Your task to perform on an android device: check data usage Image 0: 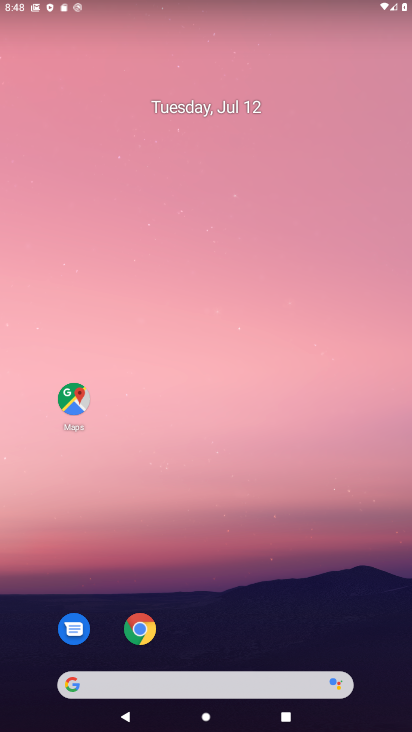
Step 0: drag from (274, 696) to (253, 131)
Your task to perform on an android device: check data usage Image 1: 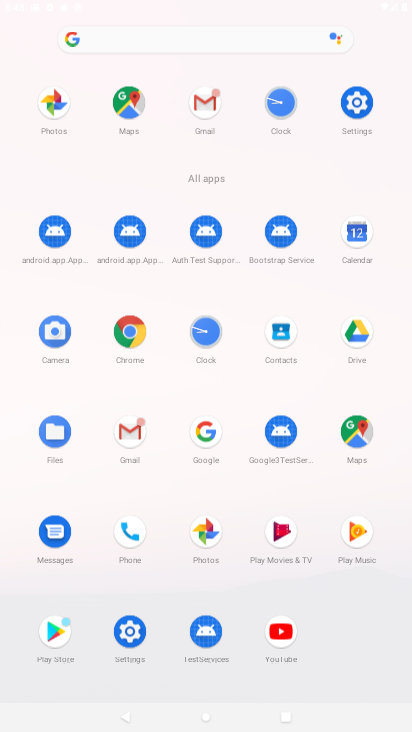
Step 1: drag from (272, 661) to (245, 189)
Your task to perform on an android device: check data usage Image 2: 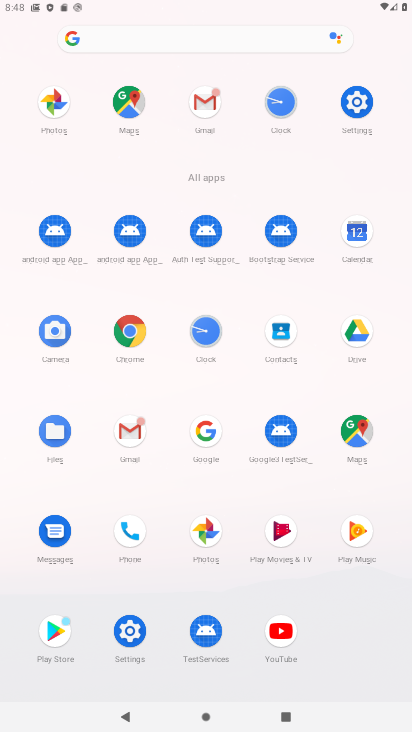
Step 2: click (356, 112)
Your task to perform on an android device: check data usage Image 3: 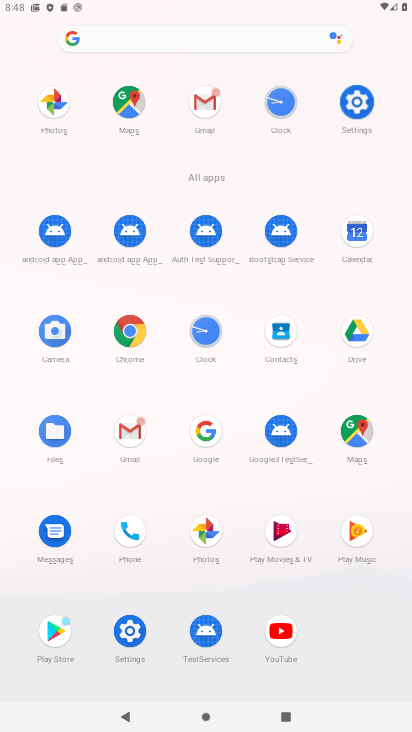
Step 3: click (356, 112)
Your task to perform on an android device: check data usage Image 4: 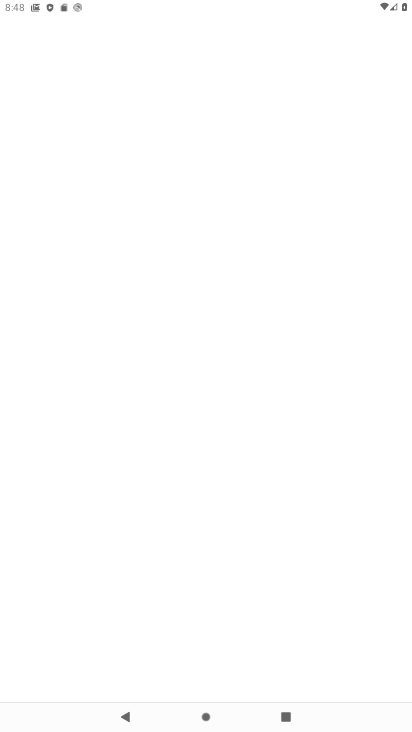
Step 4: click (357, 112)
Your task to perform on an android device: check data usage Image 5: 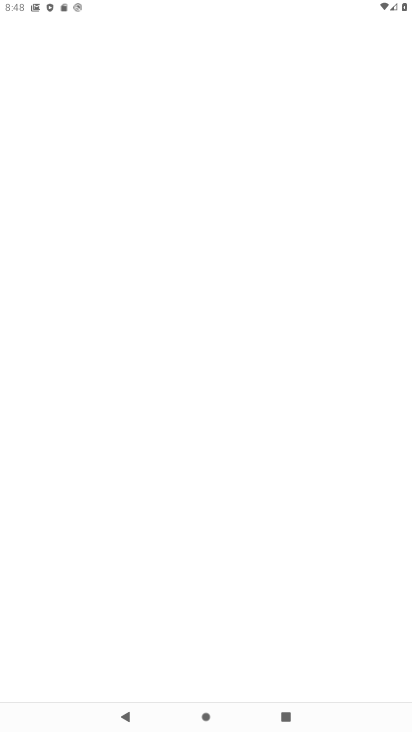
Step 5: click (357, 112)
Your task to perform on an android device: check data usage Image 6: 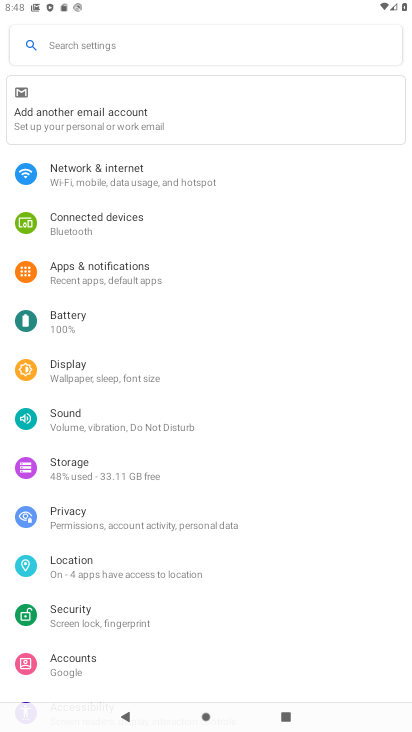
Step 6: click (120, 187)
Your task to perform on an android device: check data usage Image 7: 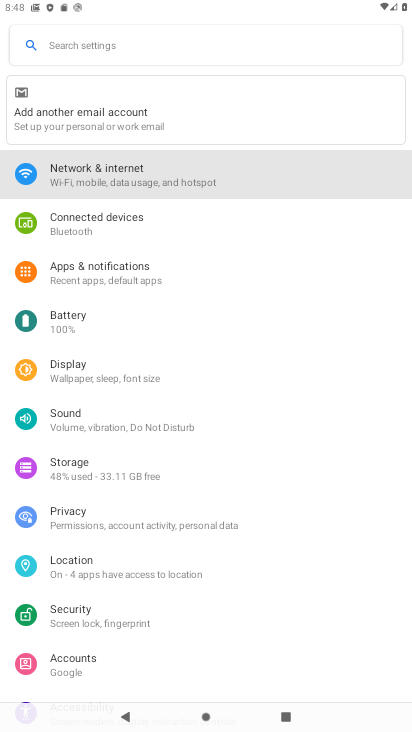
Step 7: click (120, 187)
Your task to perform on an android device: check data usage Image 8: 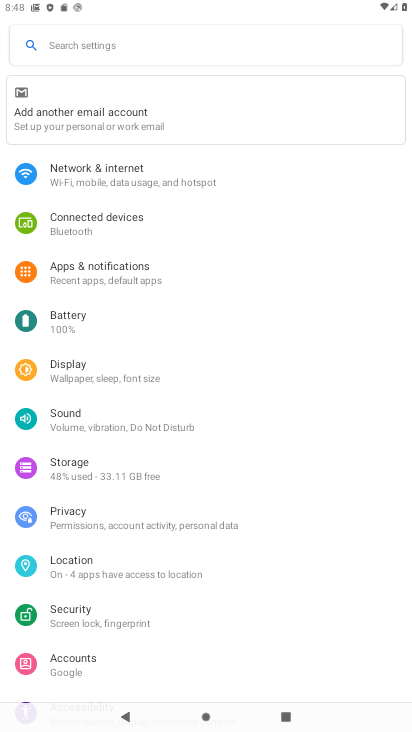
Step 8: click (120, 187)
Your task to perform on an android device: check data usage Image 9: 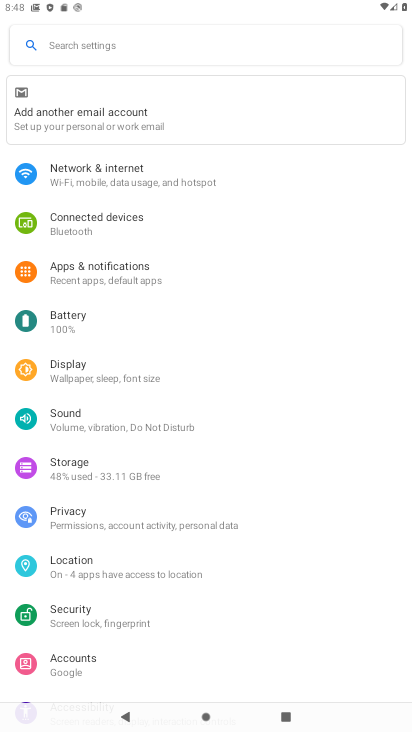
Step 9: click (120, 187)
Your task to perform on an android device: check data usage Image 10: 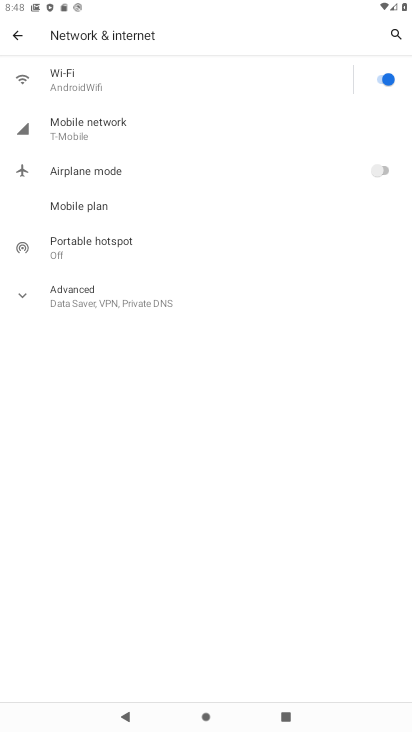
Step 10: click (79, 131)
Your task to perform on an android device: check data usage Image 11: 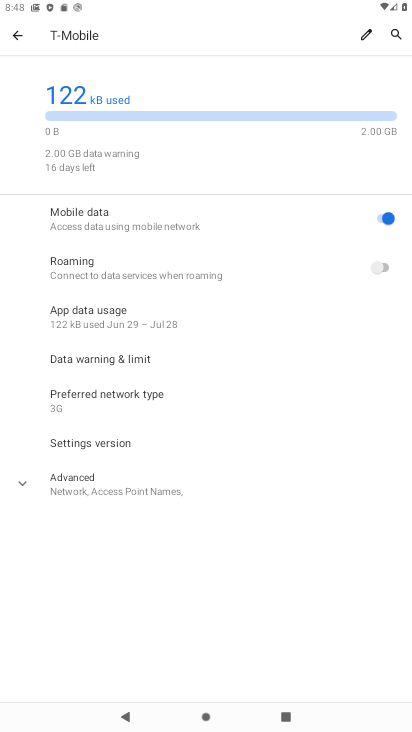
Step 11: press back button
Your task to perform on an android device: check data usage Image 12: 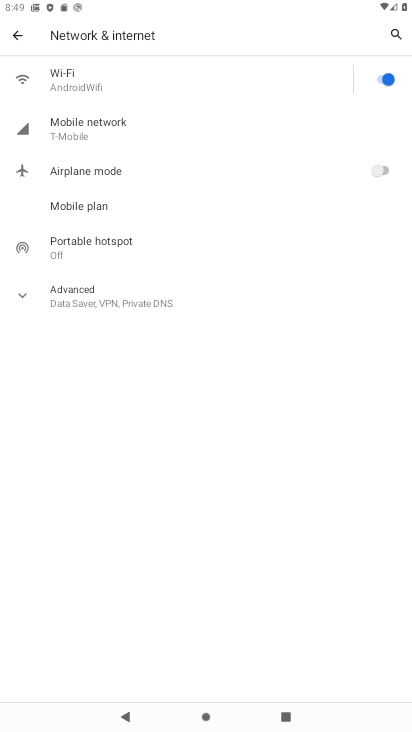
Step 12: click (15, 33)
Your task to perform on an android device: check data usage Image 13: 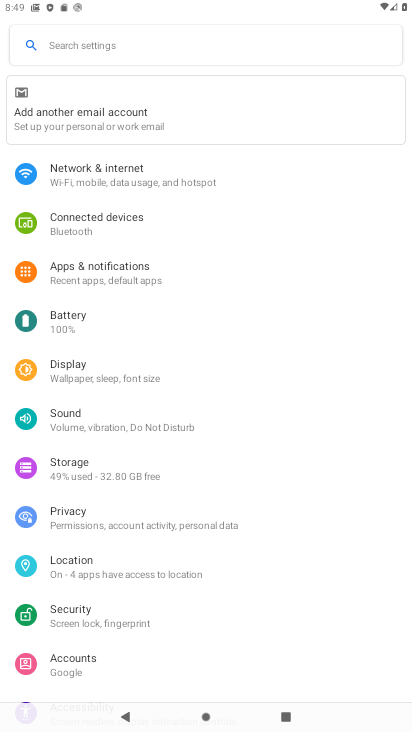
Step 13: task complete